Your task to perform on an android device: Open Maps and search for coffee Image 0: 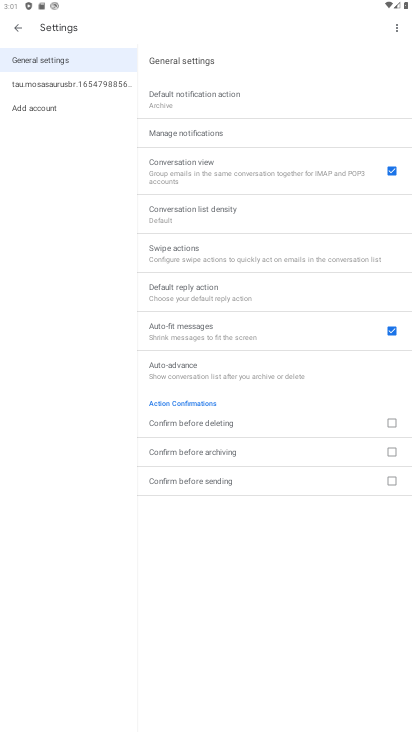
Step 0: press home button
Your task to perform on an android device: Open Maps and search for coffee Image 1: 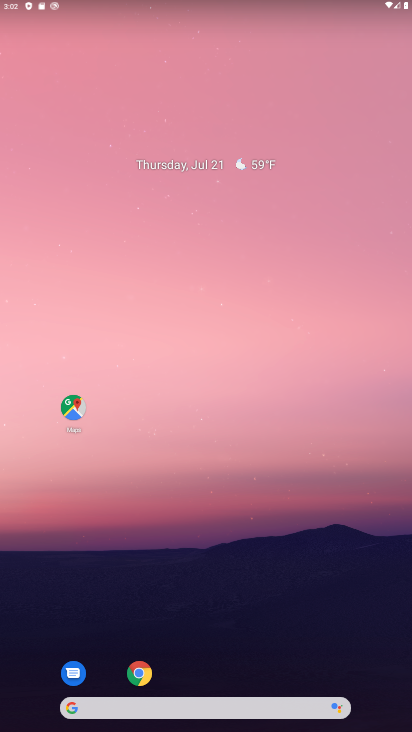
Step 1: click (78, 411)
Your task to perform on an android device: Open Maps and search for coffee Image 2: 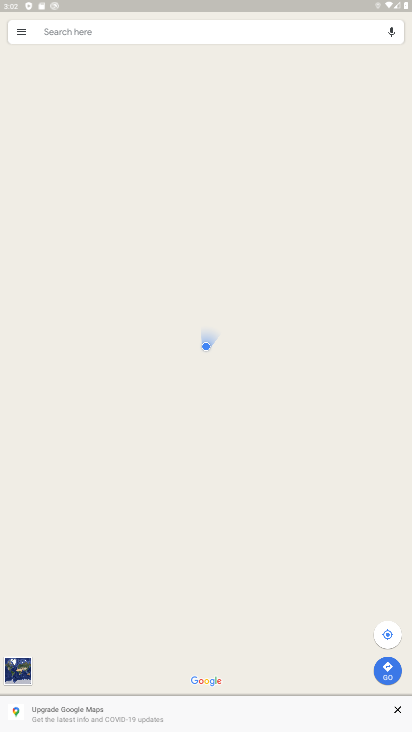
Step 2: click (165, 34)
Your task to perform on an android device: Open Maps and search for coffee Image 3: 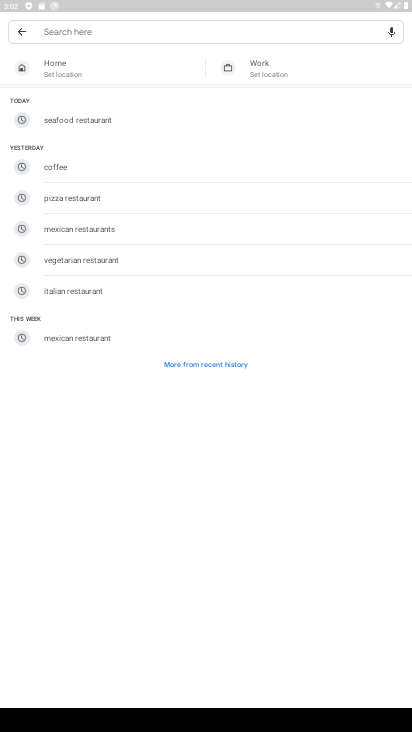
Step 3: type "coffee"
Your task to perform on an android device: Open Maps and search for coffee Image 4: 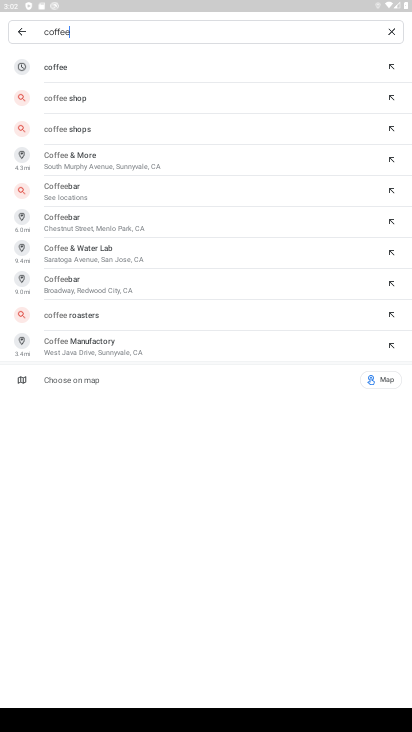
Step 4: click (132, 60)
Your task to perform on an android device: Open Maps and search for coffee Image 5: 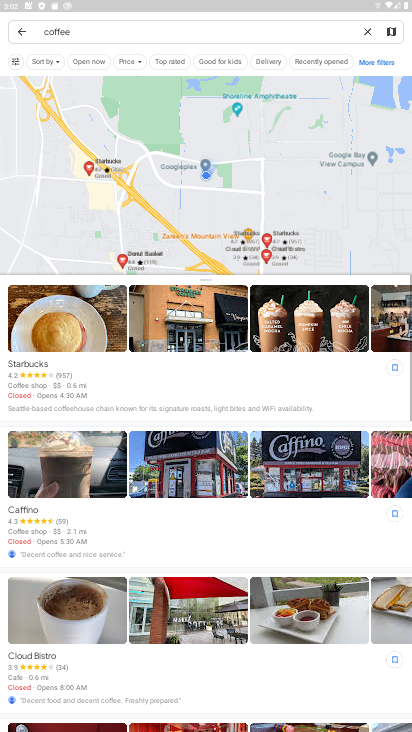
Step 5: task complete